Your task to perform on an android device: Open Wikipedia Image 0: 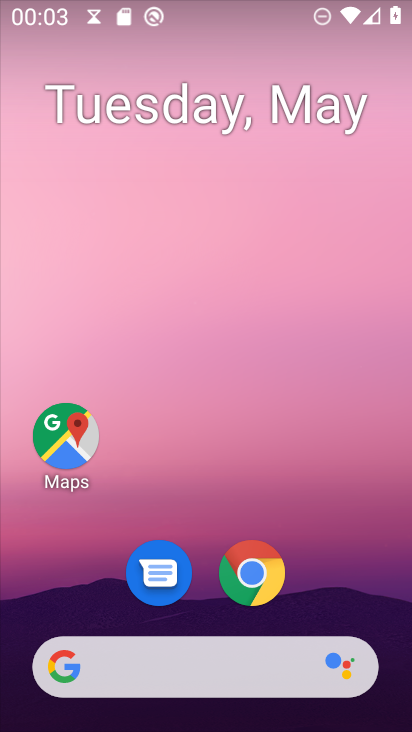
Step 0: click (268, 572)
Your task to perform on an android device: Open Wikipedia Image 1: 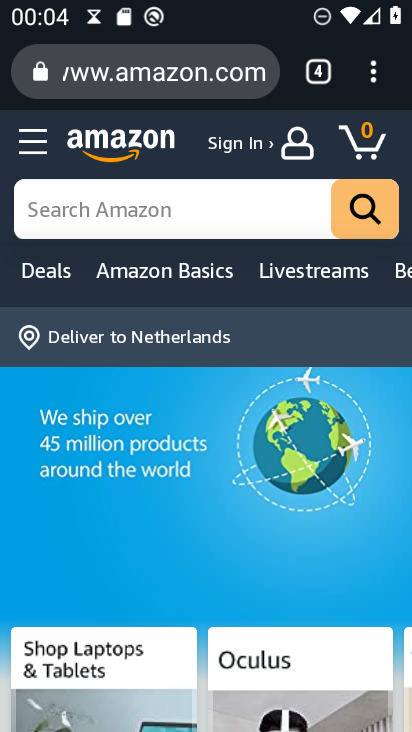
Step 1: click (321, 76)
Your task to perform on an android device: Open Wikipedia Image 2: 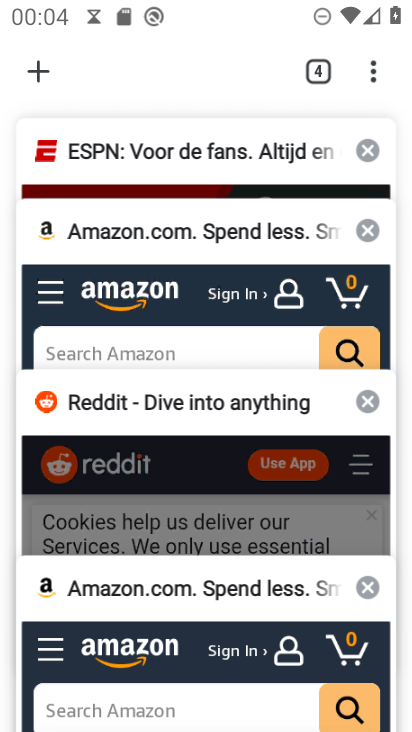
Step 2: click (43, 80)
Your task to perform on an android device: Open Wikipedia Image 3: 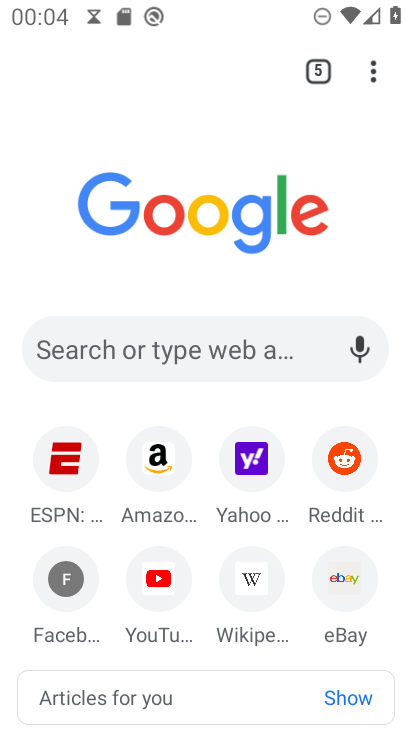
Step 3: click (256, 581)
Your task to perform on an android device: Open Wikipedia Image 4: 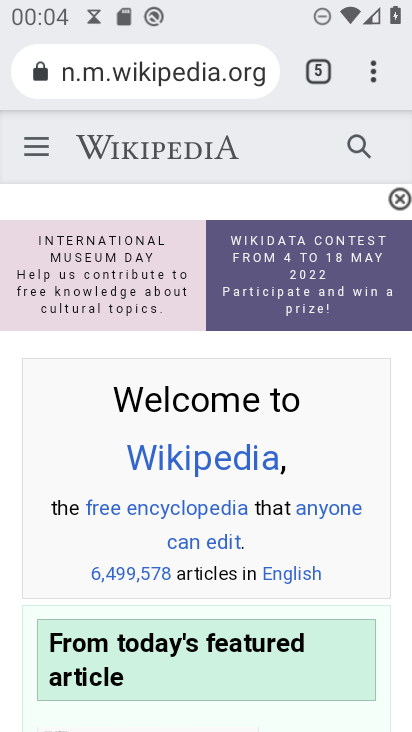
Step 4: task complete